Your task to perform on an android device: Is it going to rain this weekend? Image 0: 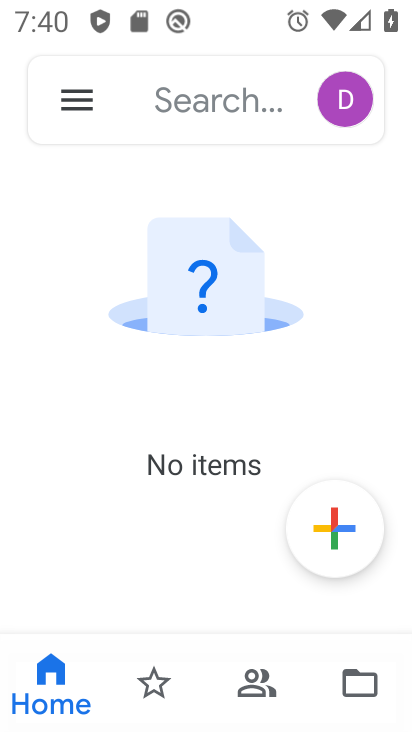
Step 0: press home button
Your task to perform on an android device: Is it going to rain this weekend? Image 1: 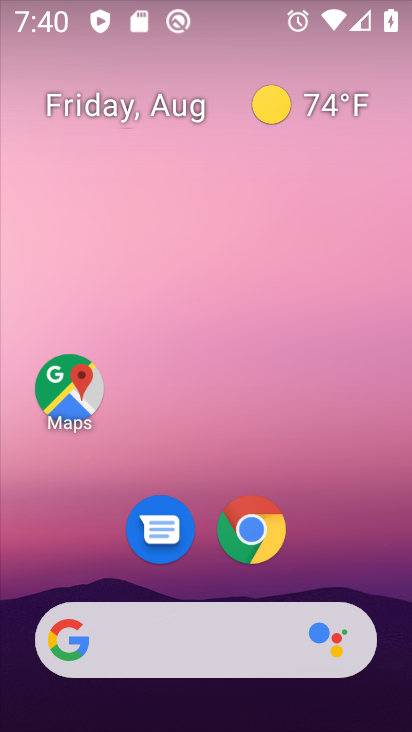
Step 1: drag from (137, 652) to (158, 94)
Your task to perform on an android device: Is it going to rain this weekend? Image 2: 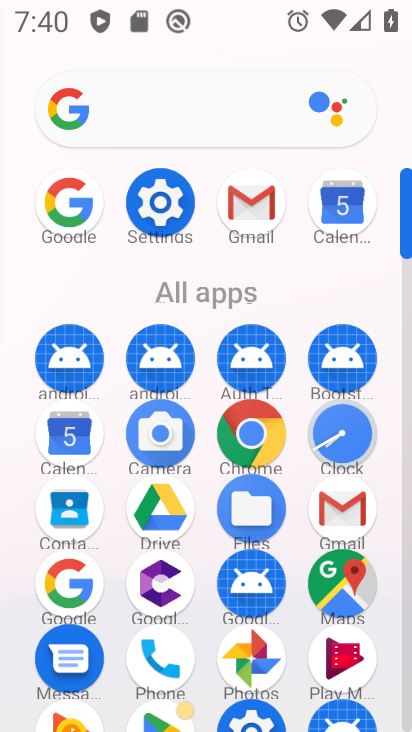
Step 2: click (65, 202)
Your task to perform on an android device: Is it going to rain this weekend? Image 3: 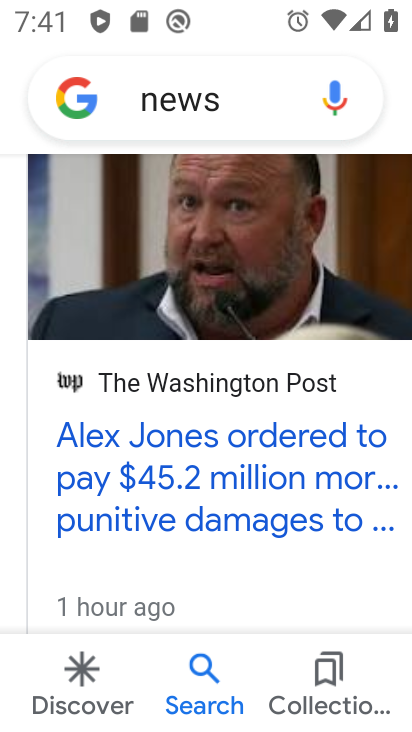
Step 3: click (231, 99)
Your task to perform on an android device: Is it going to rain this weekend? Image 4: 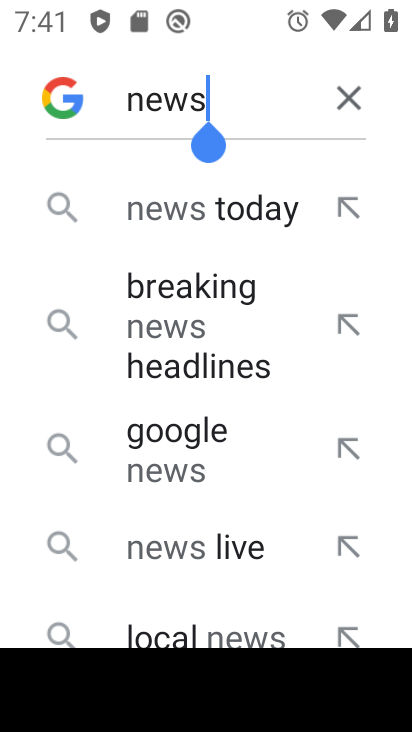
Step 4: click (353, 106)
Your task to perform on an android device: Is it going to rain this weekend? Image 5: 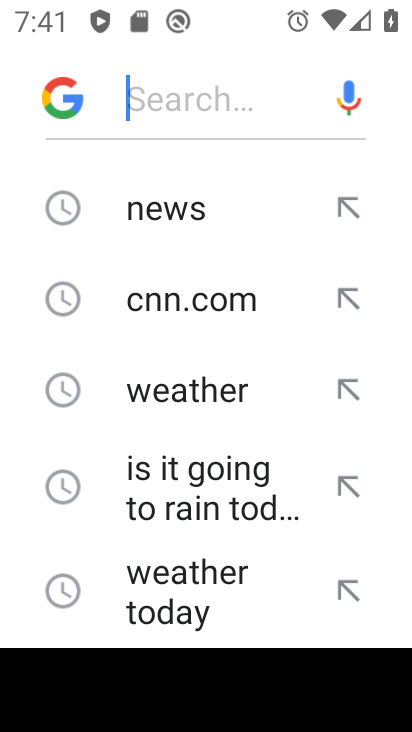
Step 5: type "Is it going to rain this weekend?"
Your task to perform on an android device: Is it going to rain this weekend? Image 6: 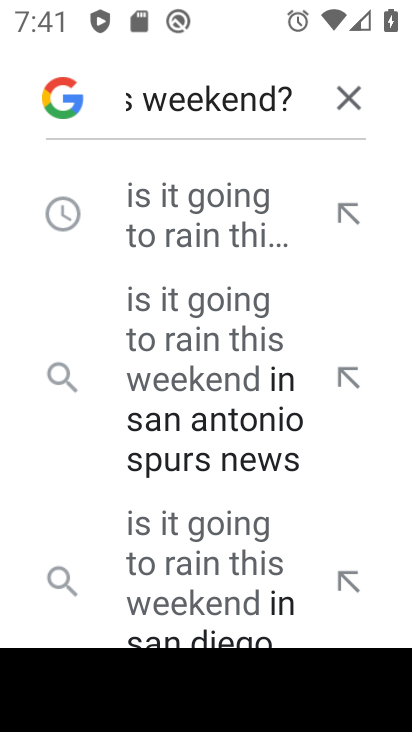
Step 6: click (221, 231)
Your task to perform on an android device: Is it going to rain this weekend? Image 7: 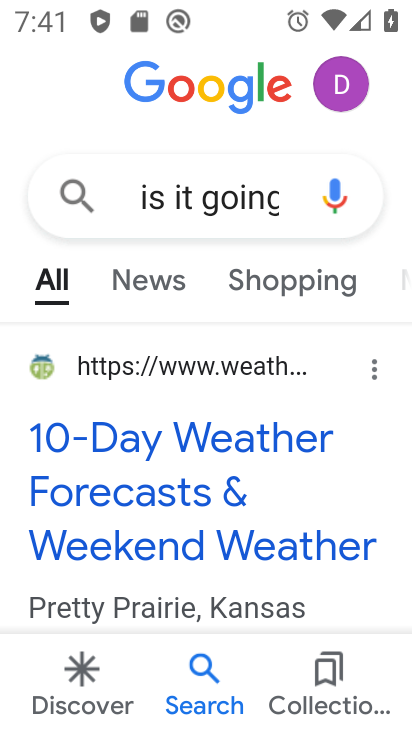
Step 7: drag from (228, 544) to (289, 270)
Your task to perform on an android device: Is it going to rain this weekend? Image 8: 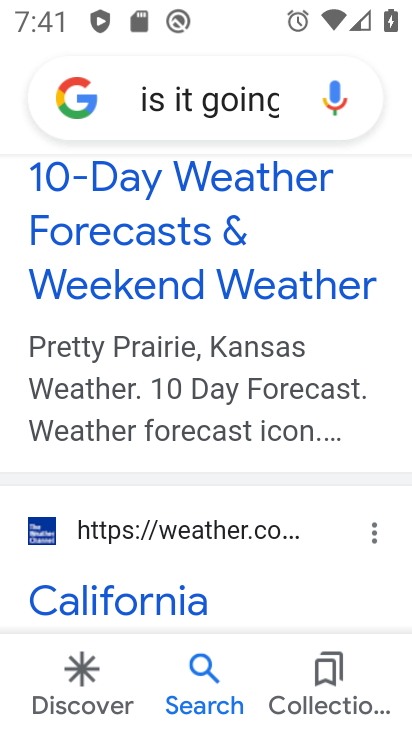
Step 8: drag from (224, 549) to (307, 385)
Your task to perform on an android device: Is it going to rain this weekend? Image 9: 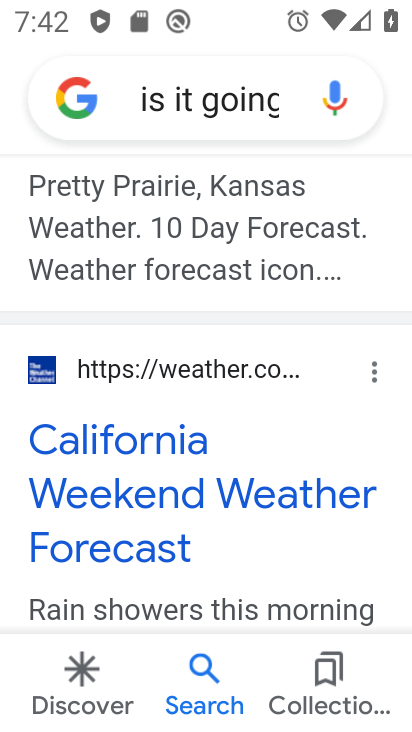
Step 9: click (229, 453)
Your task to perform on an android device: Is it going to rain this weekend? Image 10: 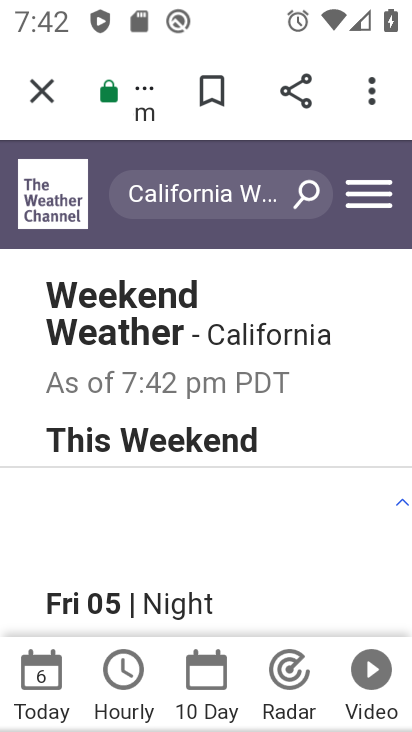
Step 10: task complete